Your task to perform on an android device: change your default location settings in chrome Image 0: 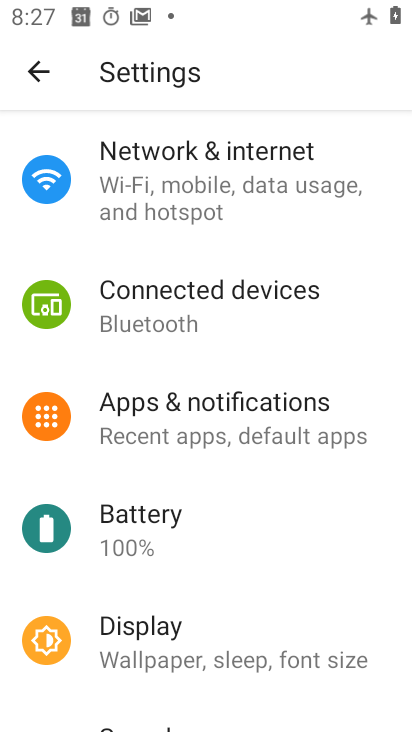
Step 0: press home button
Your task to perform on an android device: change your default location settings in chrome Image 1: 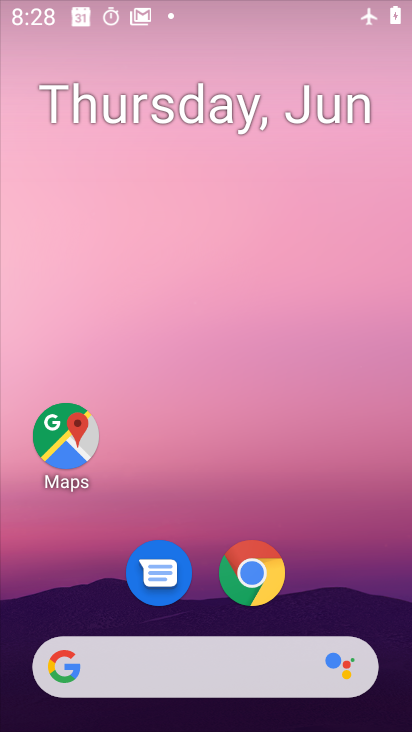
Step 1: drag from (195, 619) to (146, 243)
Your task to perform on an android device: change your default location settings in chrome Image 2: 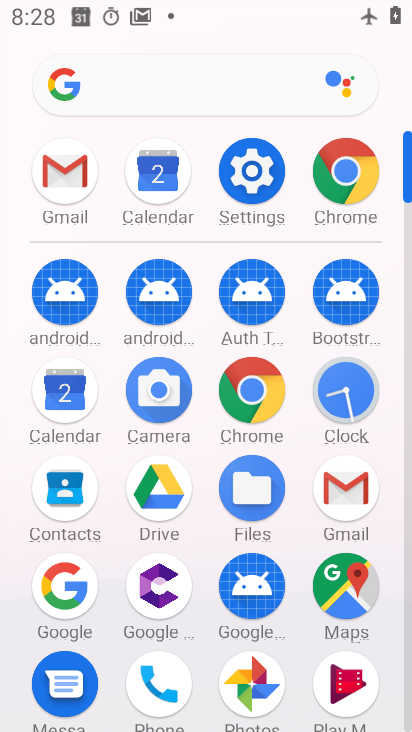
Step 2: click (240, 393)
Your task to perform on an android device: change your default location settings in chrome Image 3: 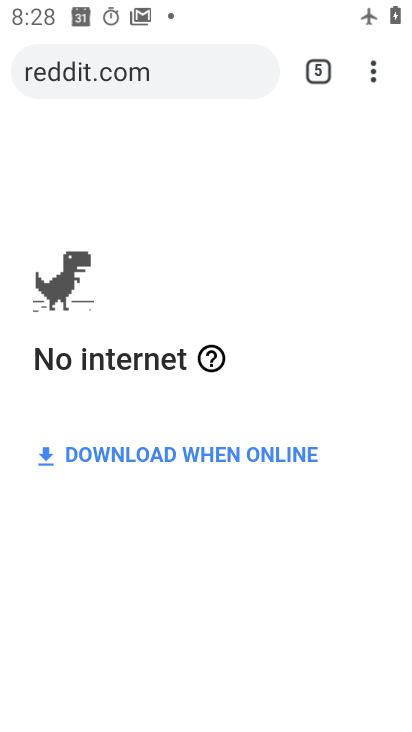
Step 3: click (362, 66)
Your task to perform on an android device: change your default location settings in chrome Image 4: 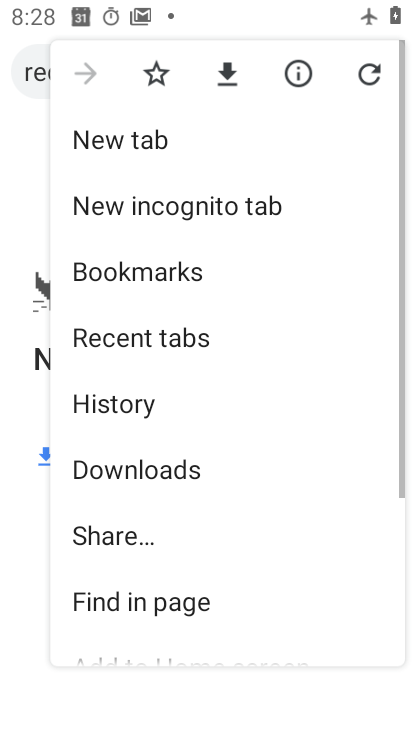
Step 4: drag from (210, 581) to (257, 218)
Your task to perform on an android device: change your default location settings in chrome Image 5: 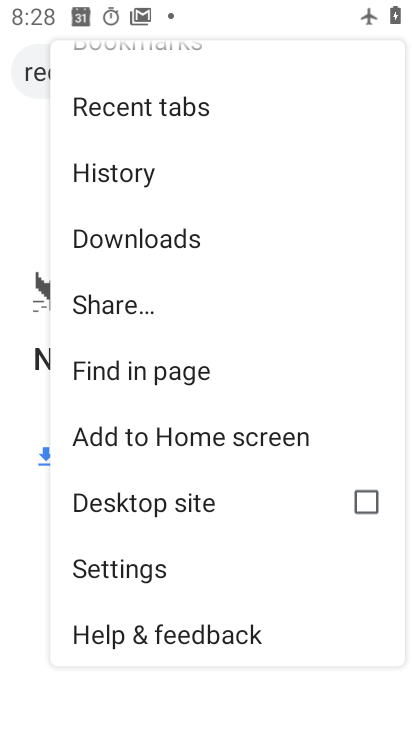
Step 5: click (192, 568)
Your task to perform on an android device: change your default location settings in chrome Image 6: 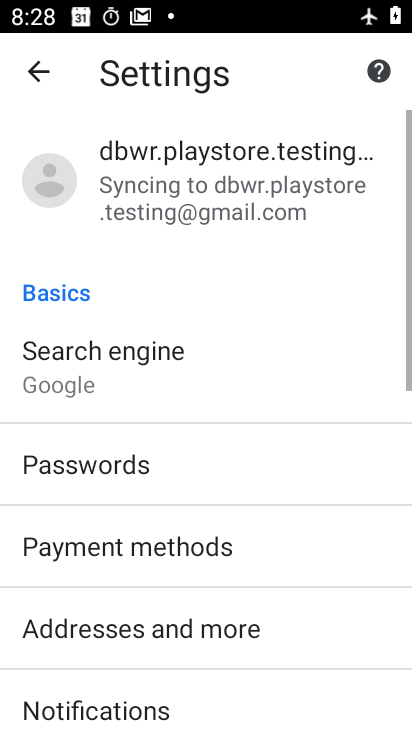
Step 6: drag from (189, 537) to (220, 283)
Your task to perform on an android device: change your default location settings in chrome Image 7: 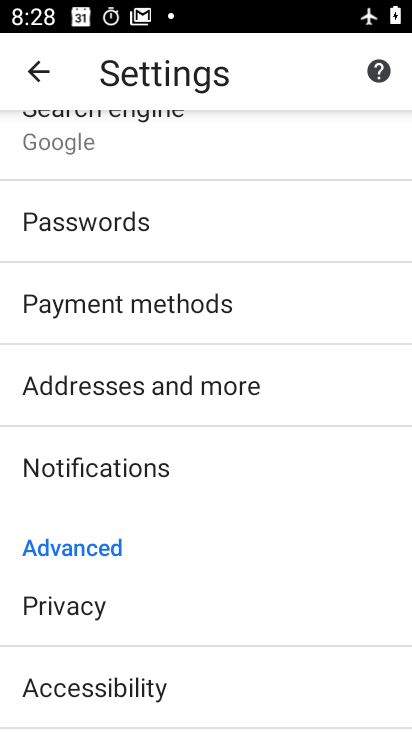
Step 7: drag from (166, 547) to (202, 223)
Your task to perform on an android device: change your default location settings in chrome Image 8: 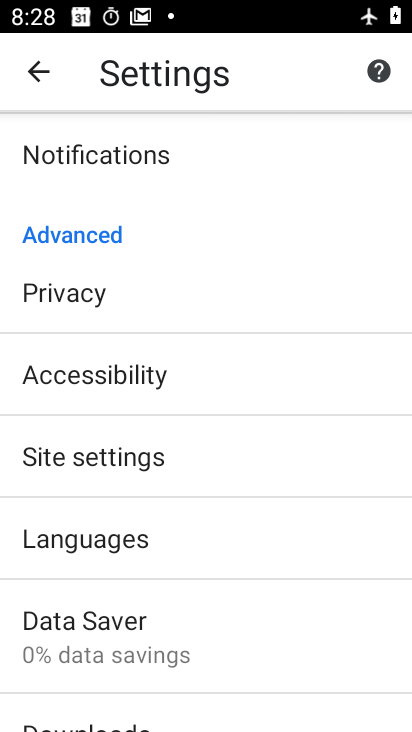
Step 8: click (138, 460)
Your task to perform on an android device: change your default location settings in chrome Image 9: 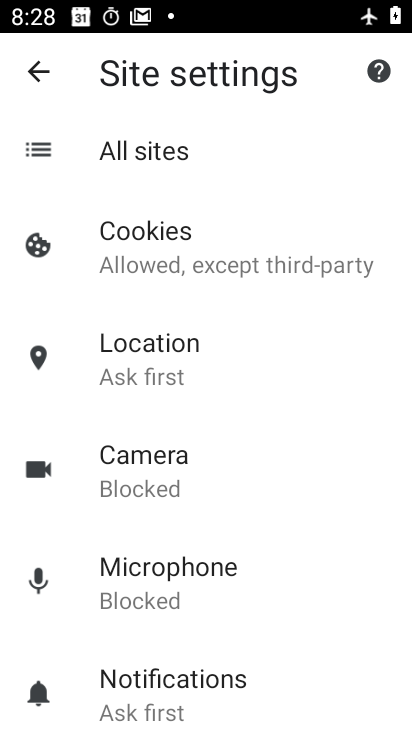
Step 9: click (199, 343)
Your task to perform on an android device: change your default location settings in chrome Image 10: 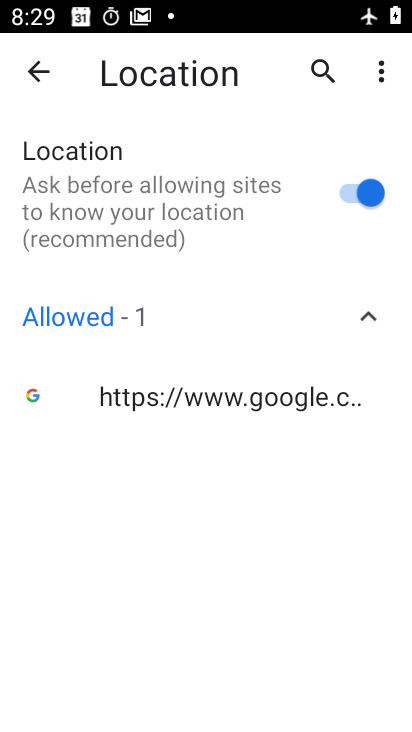
Step 10: task complete